Your task to perform on an android device: Go to Wikipedia Image 0: 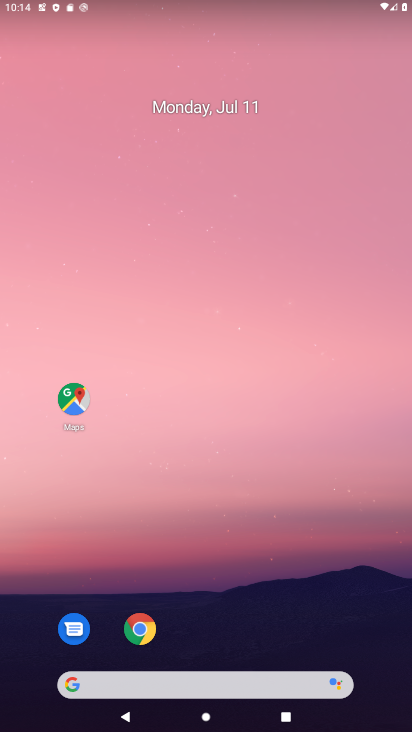
Step 0: click (136, 622)
Your task to perform on an android device: Go to Wikipedia Image 1: 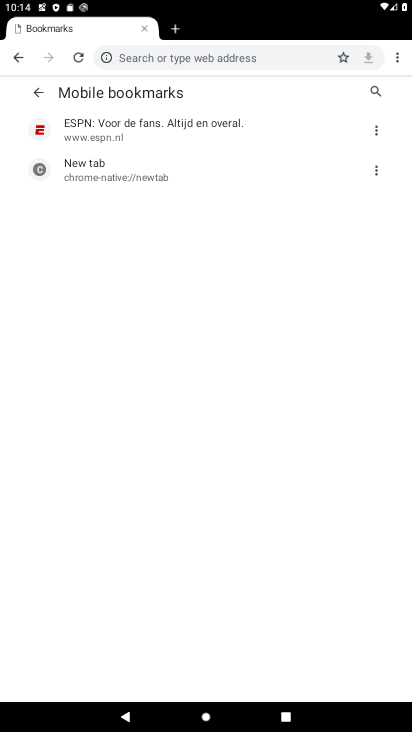
Step 1: click (179, 25)
Your task to perform on an android device: Go to Wikipedia Image 2: 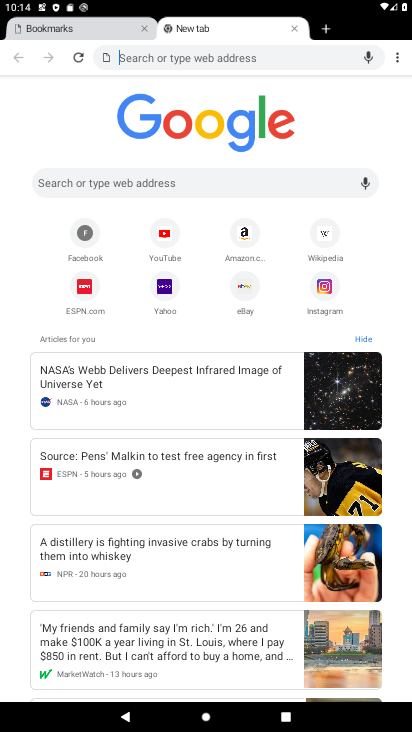
Step 2: click (313, 245)
Your task to perform on an android device: Go to Wikipedia Image 3: 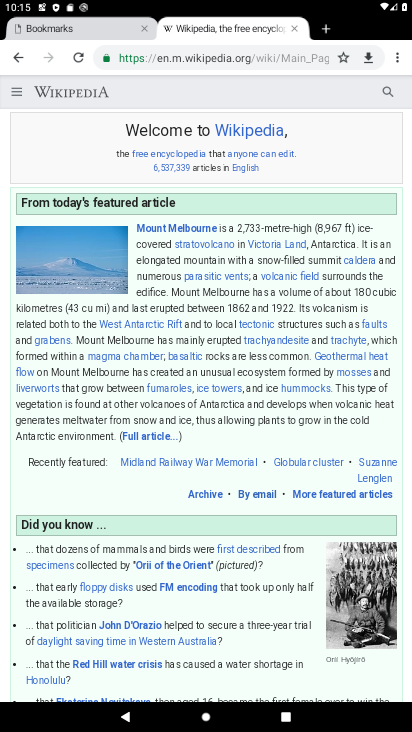
Step 3: task complete